Your task to perform on an android device: Search for Italian restaurants on Maps Image 0: 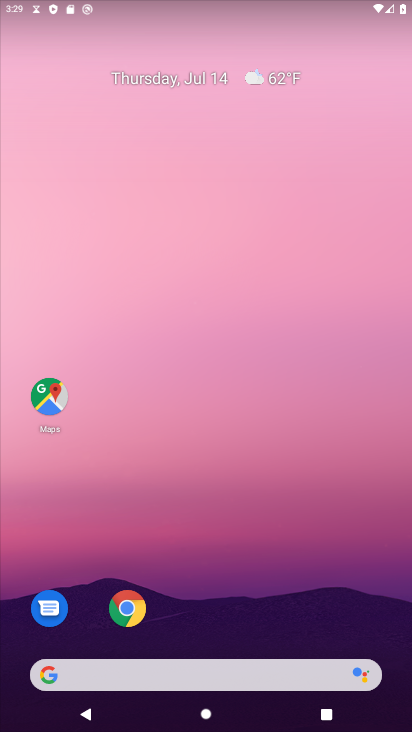
Step 0: click (55, 402)
Your task to perform on an android device: Search for Italian restaurants on Maps Image 1: 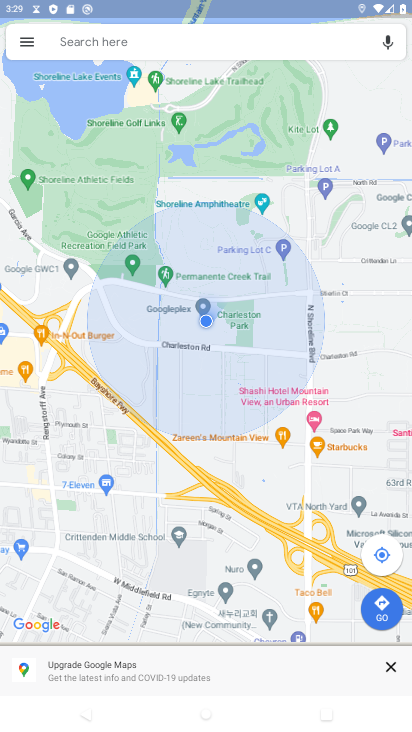
Step 1: click (130, 33)
Your task to perform on an android device: Search for Italian restaurants on Maps Image 2: 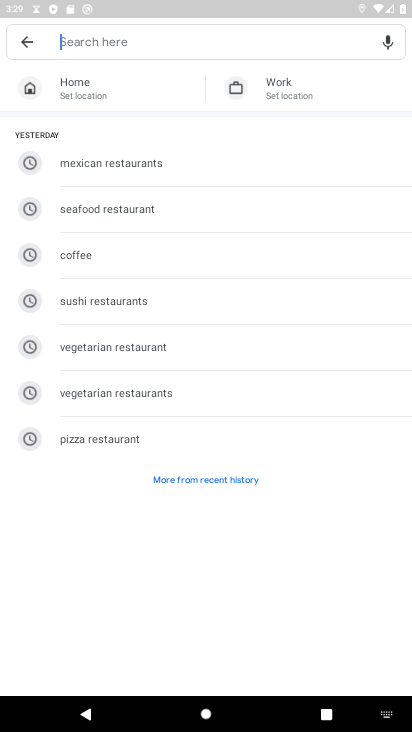
Step 2: type "italian restaurants"
Your task to perform on an android device: Search for Italian restaurants on Maps Image 3: 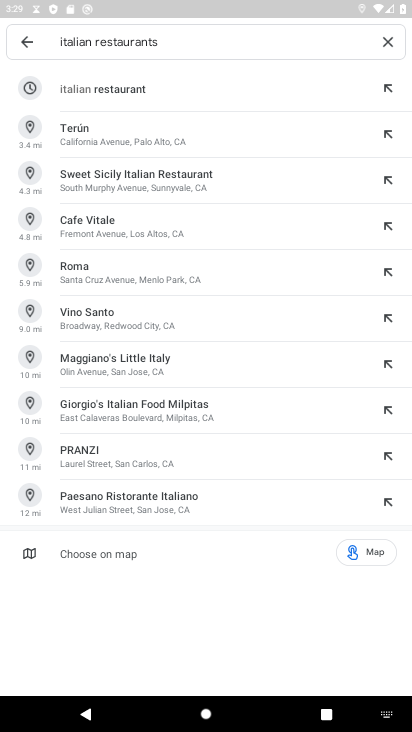
Step 3: click (120, 89)
Your task to perform on an android device: Search for Italian restaurants on Maps Image 4: 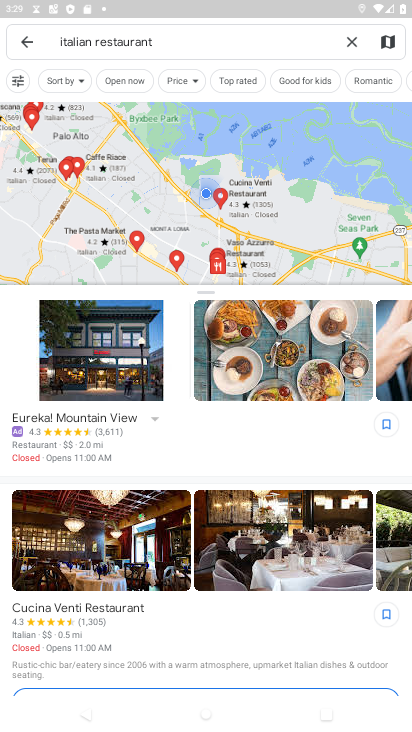
Step 4: task complete